Your task to perform on an android device: Open display settings Image 0: 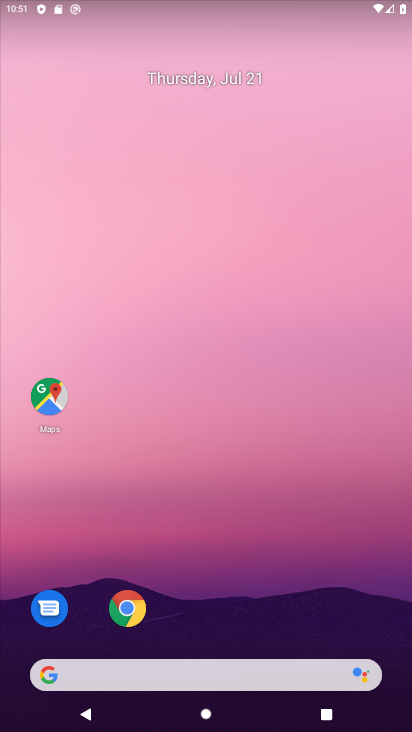
Step 0: drag from (249, 620) to (183, 239)
Your task to perform on an android device: Open display settings Image 1: 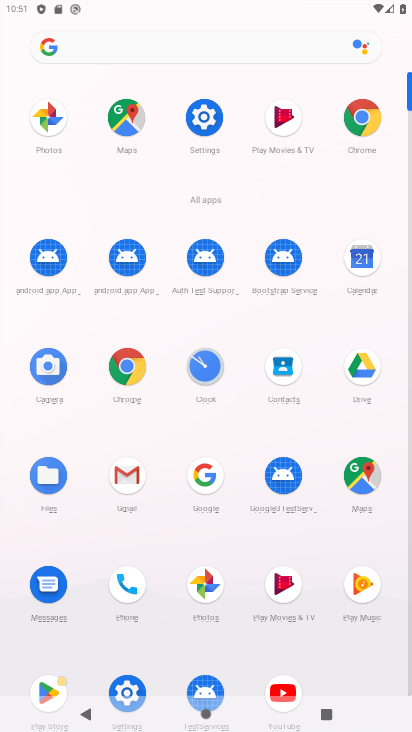
Step 1: click (215, 136)
Your task to perform on an android device: Open display settings Image 2: 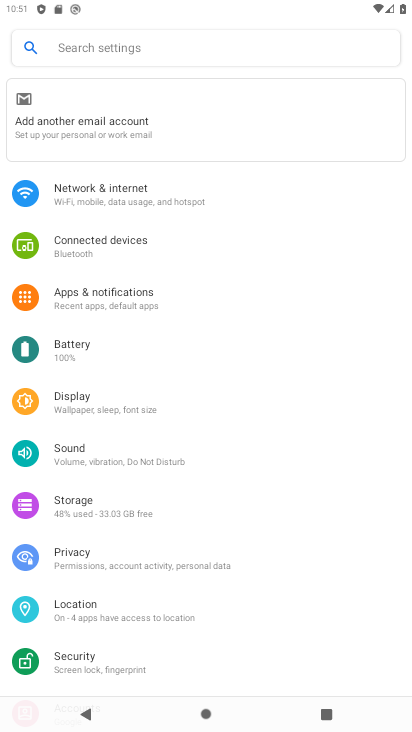
Step 2: click (168, 415)
Your task to perform on an android device: Open display settings Image 3: 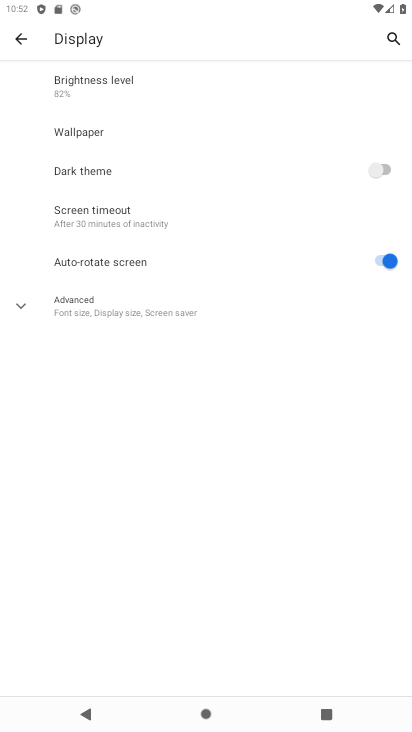
Step 3: task complete